Your task to perform on an android device: open app "ZOOM Cloud Meetings" Image 0: 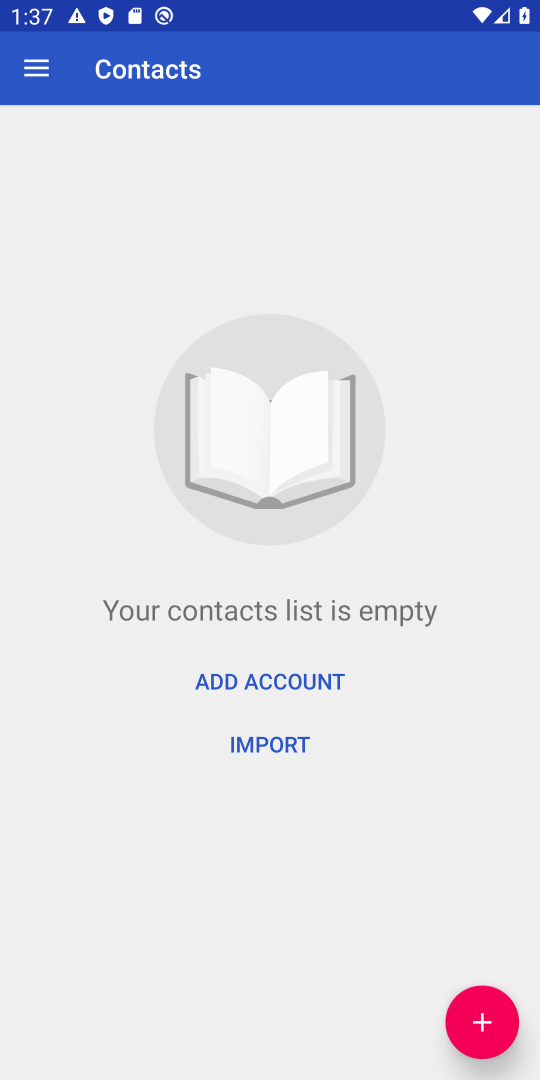
Step 0: press home button
Your task to perform on an android device: open app "ZOOM Cloud Meetings" Image 1: 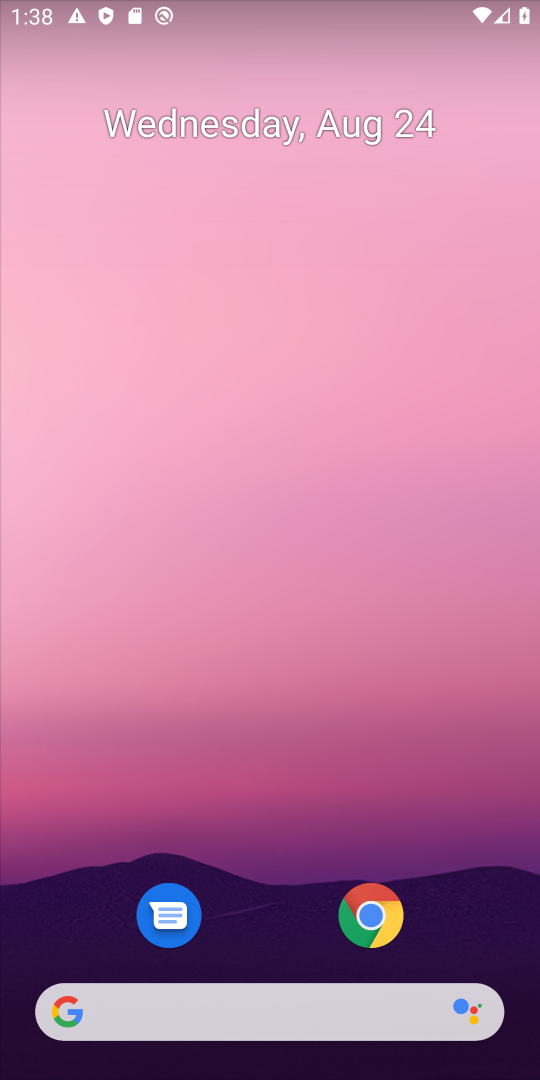
Step 1: drag from (278, 740) to (260, 227)
Your task to perform on an android device: open app "ZOOM Cloud Meetings" Image 2: 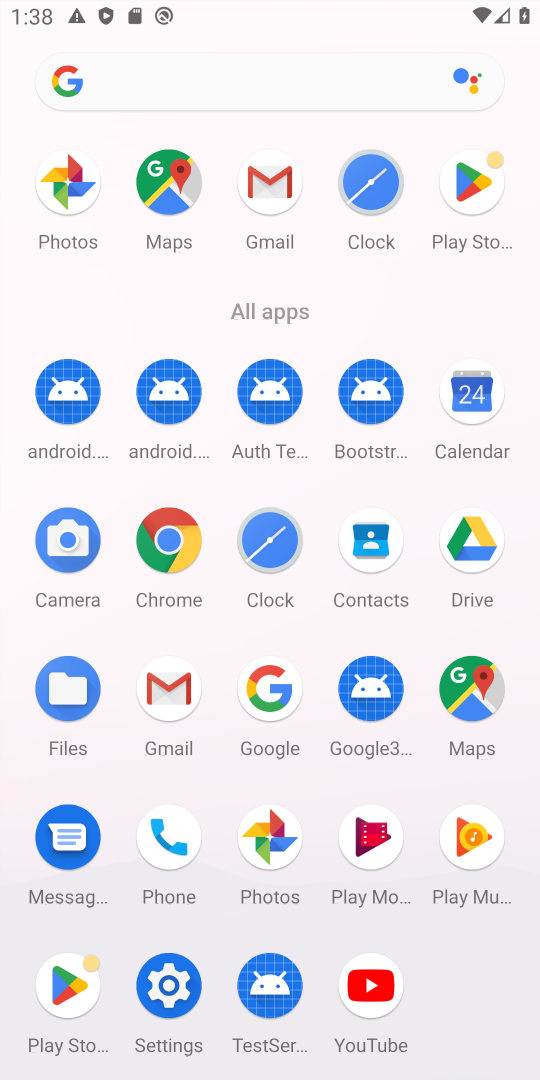
Step 2: click (479, 187)
Your task to perform on an android device: open app "ZOOM Cloud Meetings" Image 3: 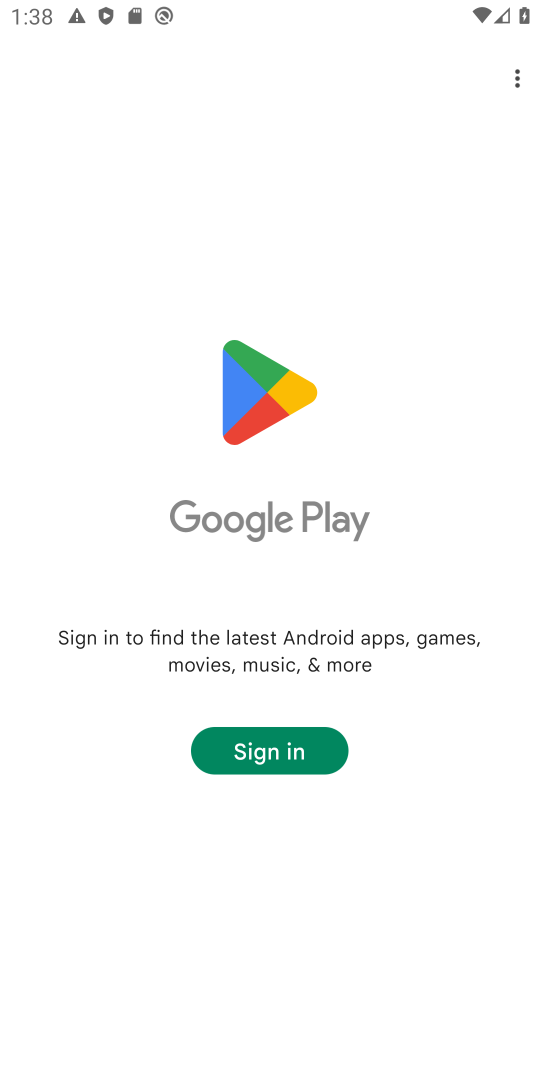
Step 3: task complete